Your task to perform on an android device: Go to battery settings Image 0: 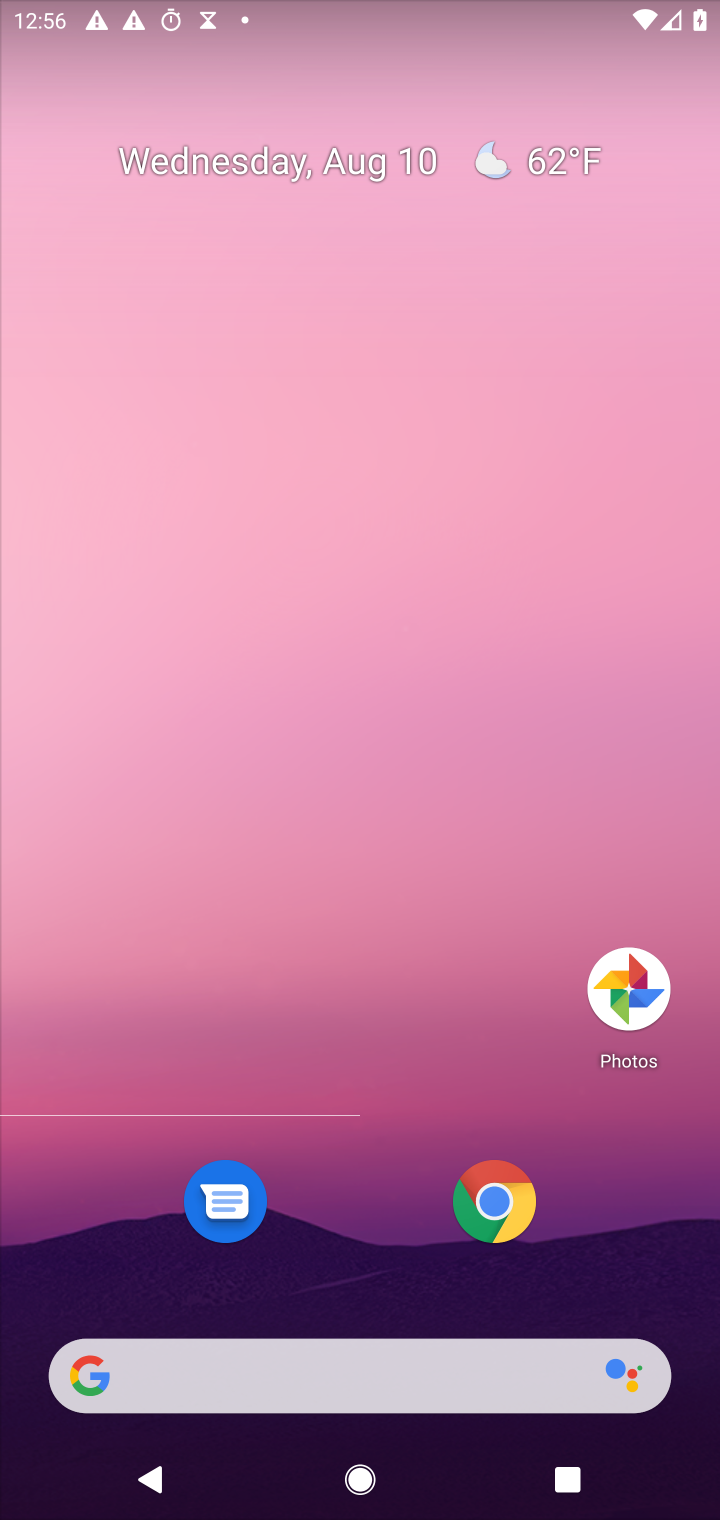
Step 0: press home button
Your task to perform on an android device: Go to battery settings Image 1: 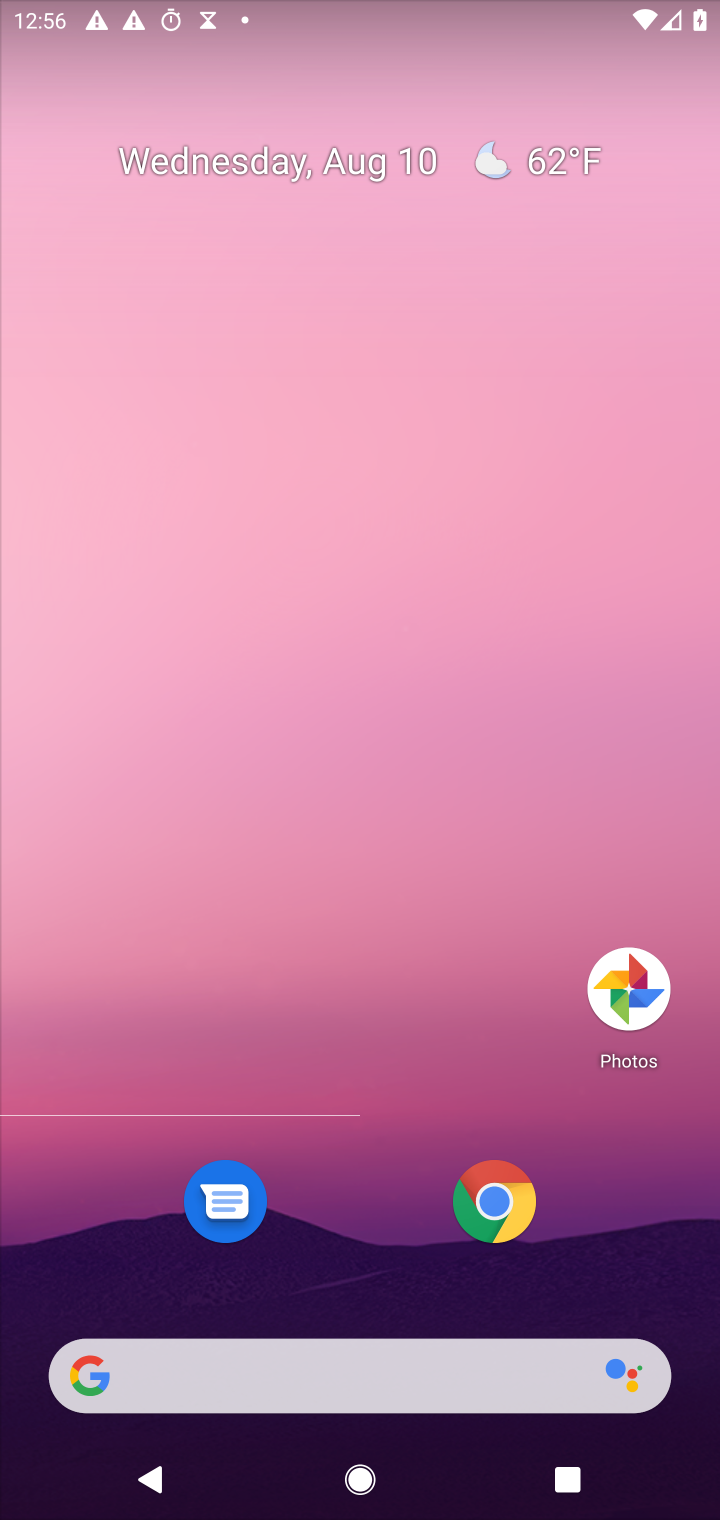
Step 1: drag from (357, 1185) to (285, 147)
Your task to perform on an android device: Go to battery settings Image 2: 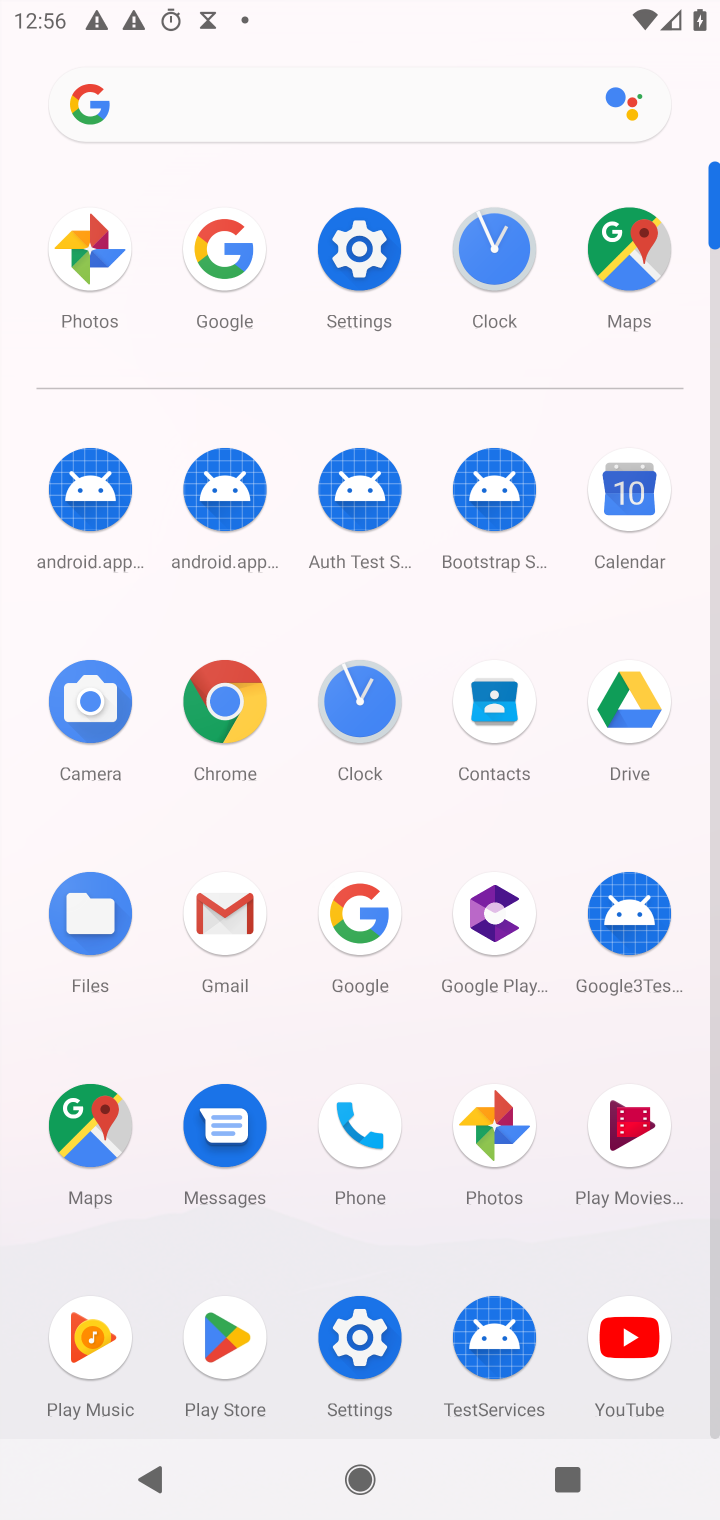
Step 2: click (353, 258)
Your task to perform on an android device: Go to battery settings Image 3: 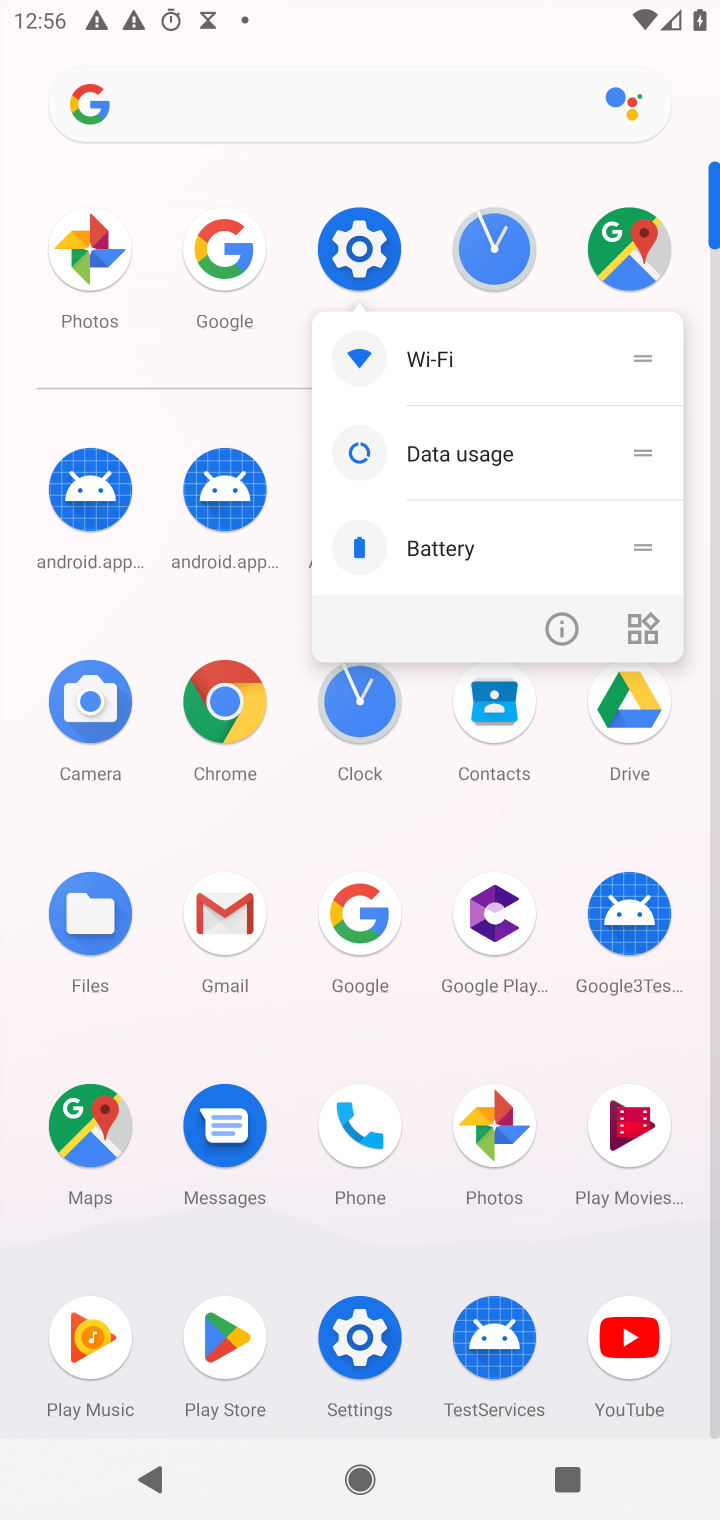
Step 3: click (365, 240)
Your task to perform on an android device: Go to battery settings Image 4: 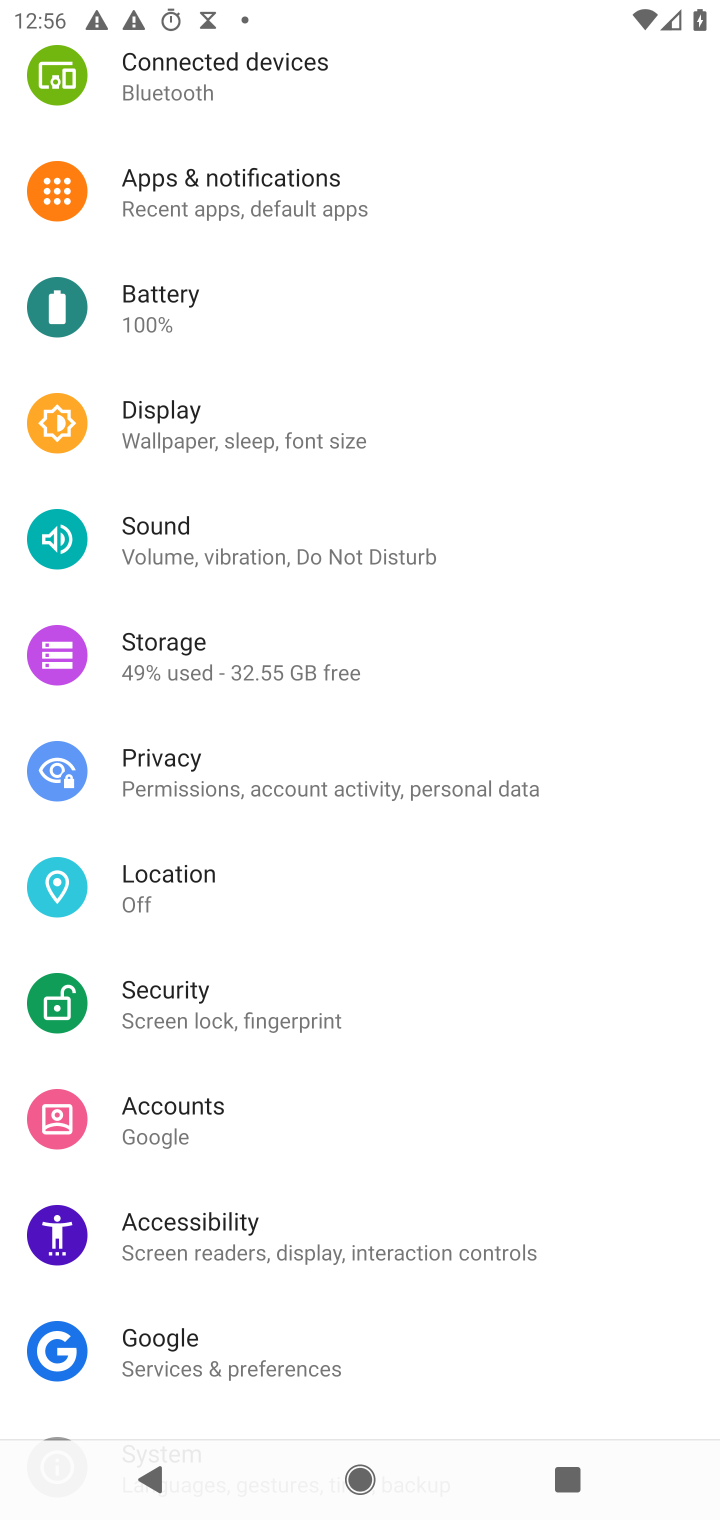
Step 4: click (151, 314)
Your task to perform on an android device: Go to battery settings Image 5: 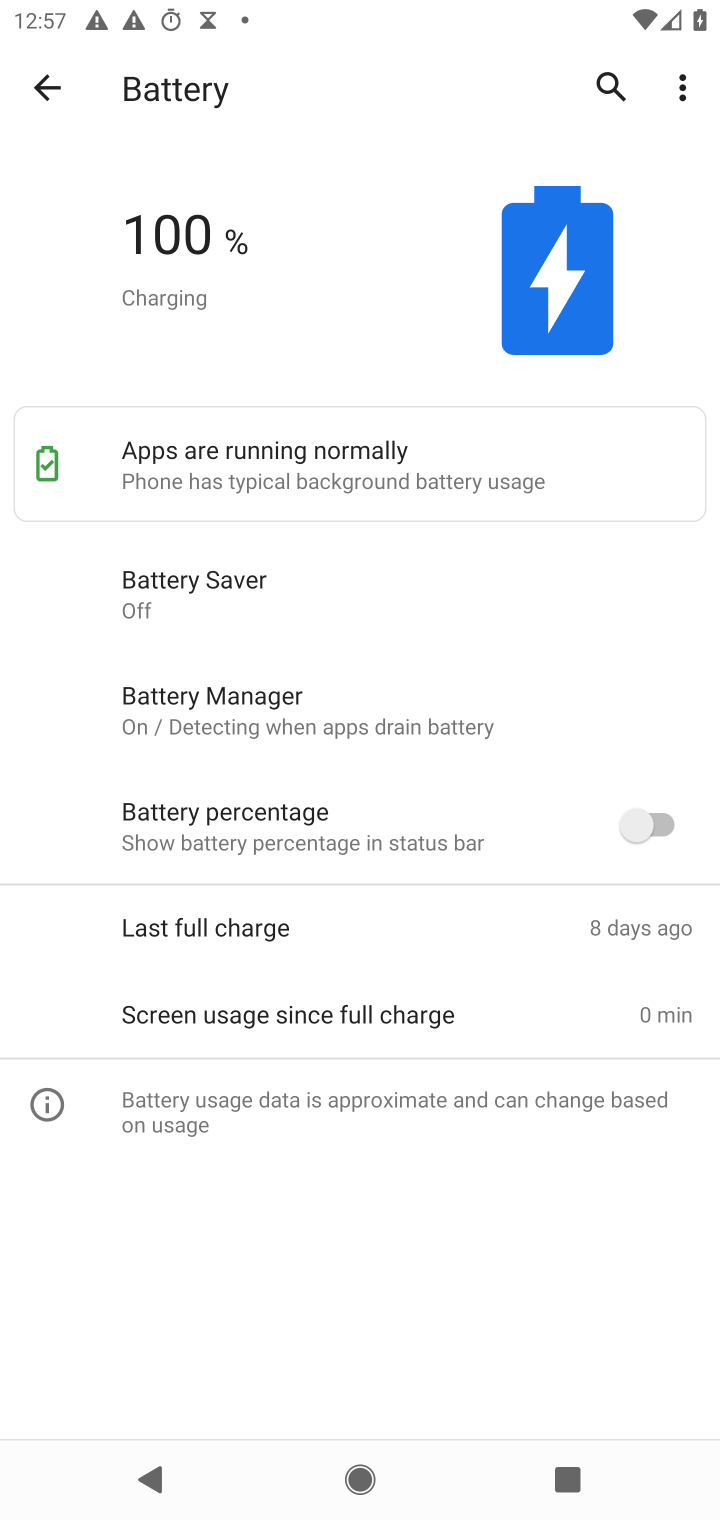
Step 5: task complete